Your task to perform on an android device: Open Reddit.com Image 0: 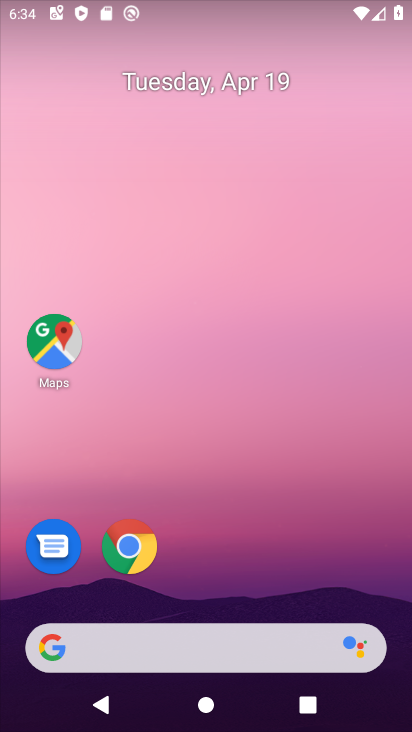
Step 0: drag from (268, 499) to (295, 108)
Your task to perform on an android device: Open Reddit.com Image 1: 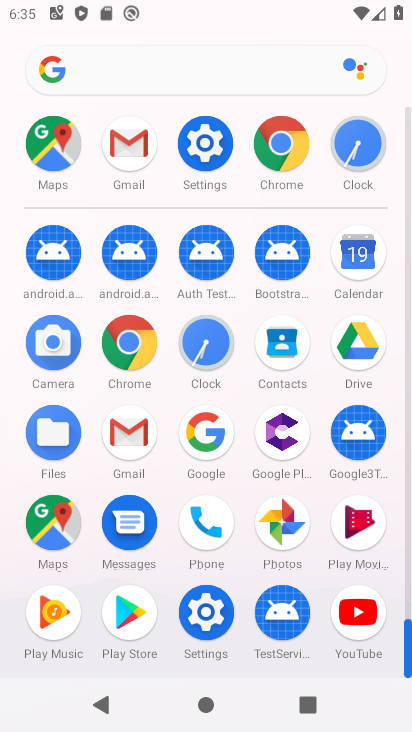
Step 1: click (120, 350)
Your task to perform on an android device: Open Reddit.com Image 2: 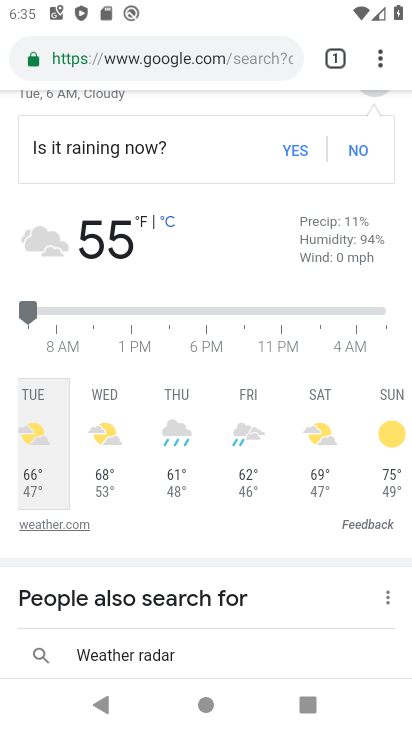
Step 2: click (174, 64)
Your task to perform on an android device: Open Reddit.com Image 3: 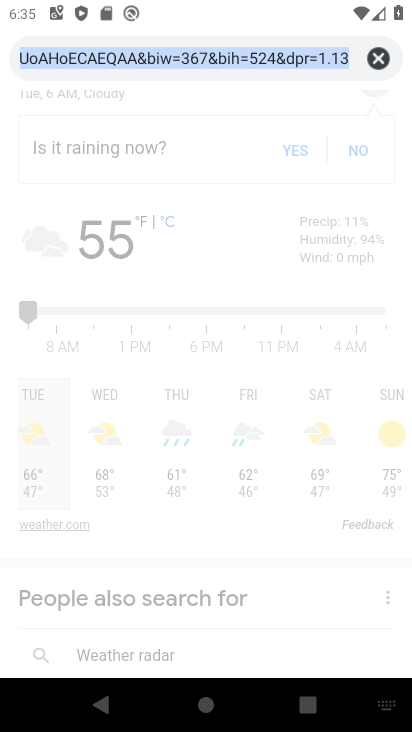
Step 3: type "reddit.com"
Your task to perform on an android device: Open Reddit.com Image 4: 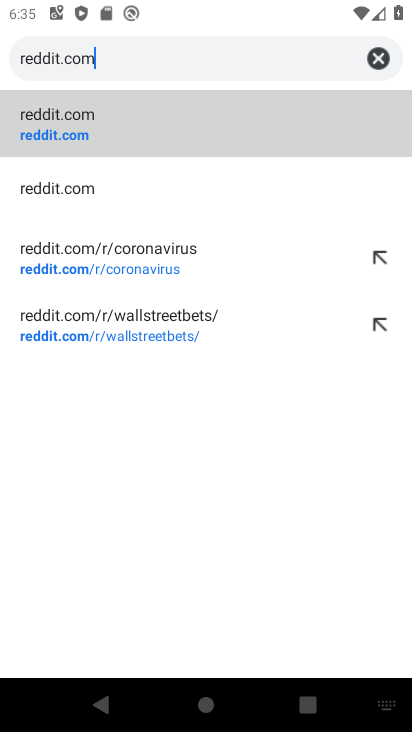
Step 4: click (145, 127)
Your task to perform on an android device: Open Reddit.com Image 5: 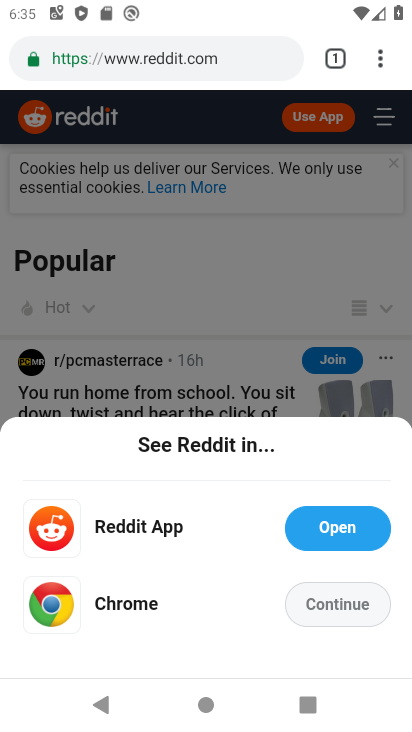
Step 5: task complete